Your task to perform on an android device: show emergency info Image 0: 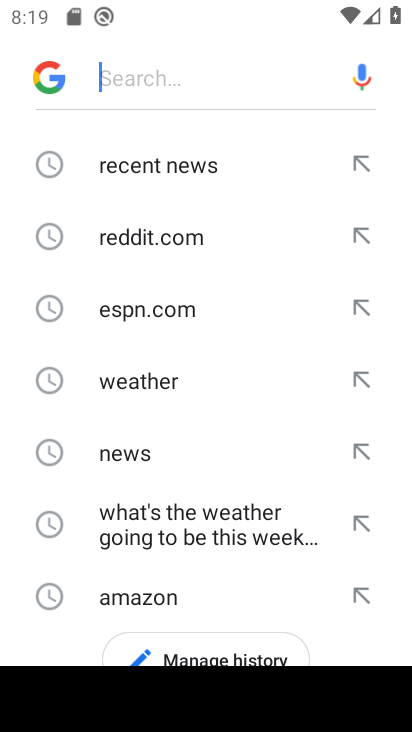
Step 0: press home button
Your task to perform on an android device: show emergency info Image 1: 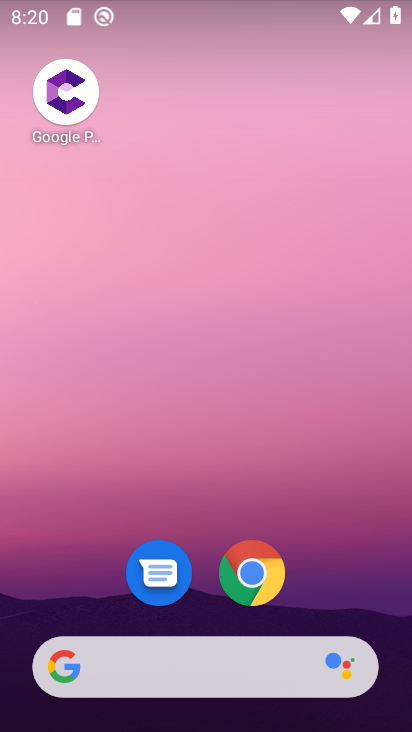
Step 1: drag from (256, 247) to (232, 43)
Your task to perform on an android device: show emergency info Image 2: 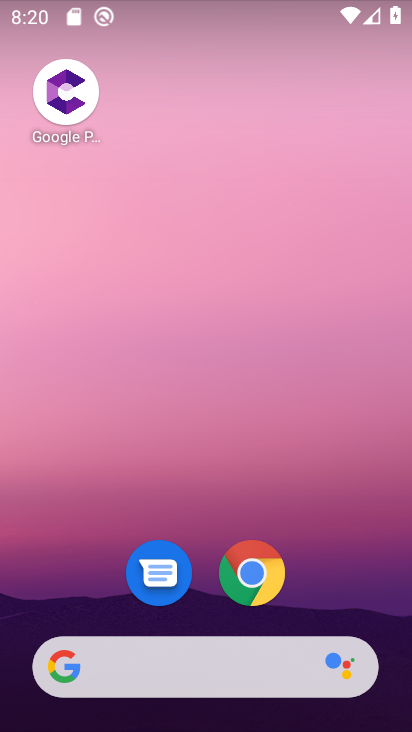
Step 2: drag from (286, 486) to (246, 134)
Your task to perform on an android device: show emergency info Image 3: 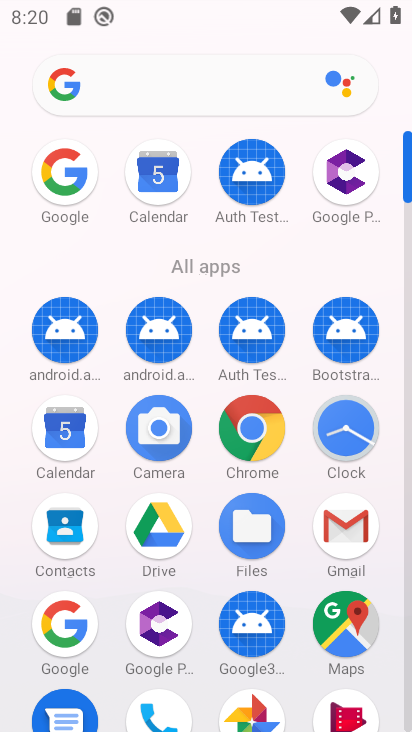
Step 3: drag from (206, 241) to (206, 106)
Your task to perform on an android device: show emergency info Image 4: 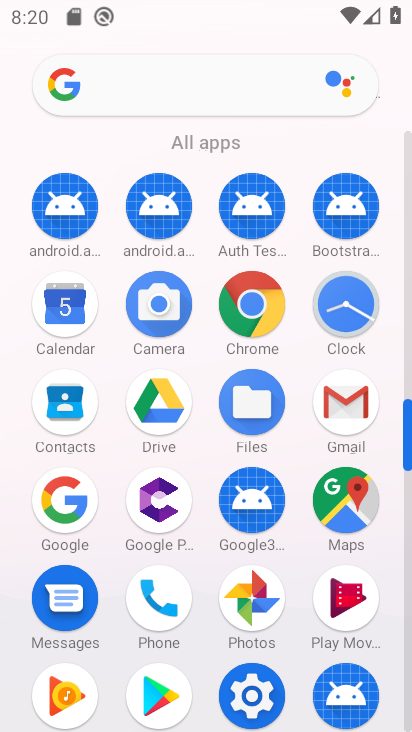
Step 4: click (243, 679)
Your task to perform on an android device: show emergency info Image 5: 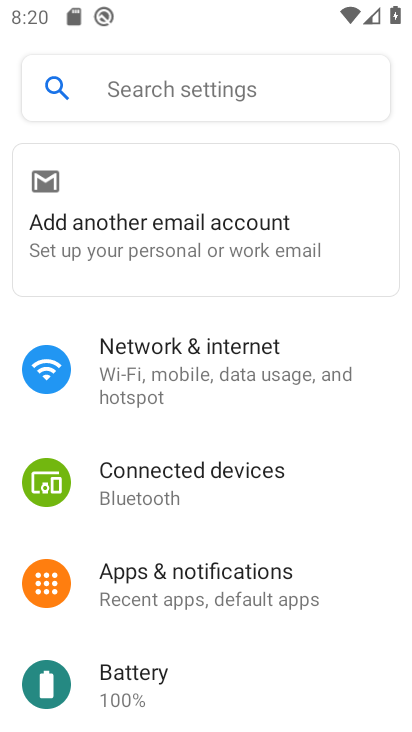
Step 5: drag from (257, 593) to (281, 75)
Your task to perform on an android device: show emergency info Image 6: 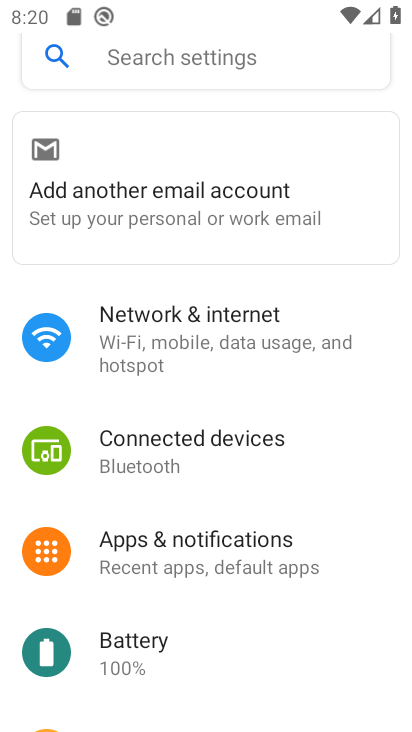
Step 6: drag from (195, 470) to (193, 194)
Your task to perform on an android device: show emergency info Image 7: 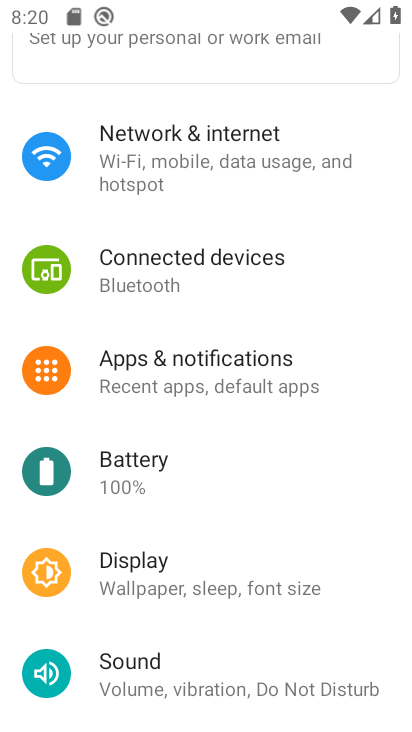
Step 7: drag from (192, 359) to (190, 289)
Your task to perform on an android device: show emergency info Image 8: 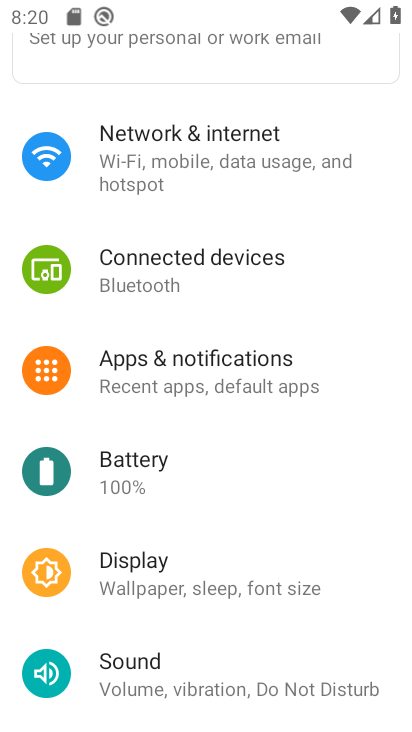
Step 8: drag from (215, 342) to (215, 270)
Your task to perform on an android device: show emergency info Image 9: 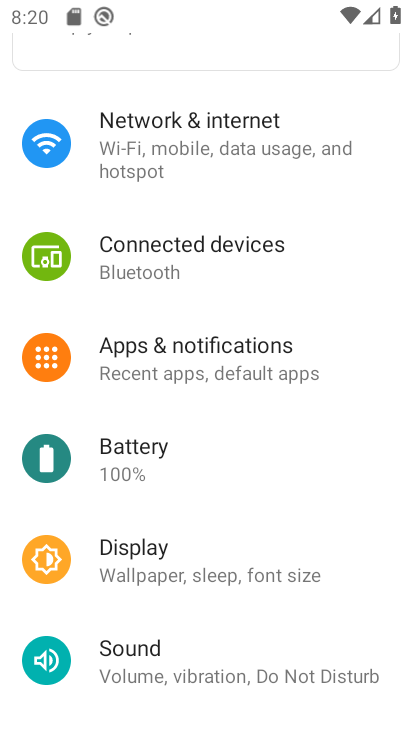
Step 9: drag from (214, 564) to (210, 371)
Your task to perform on an android device: show emergency info Image 10: 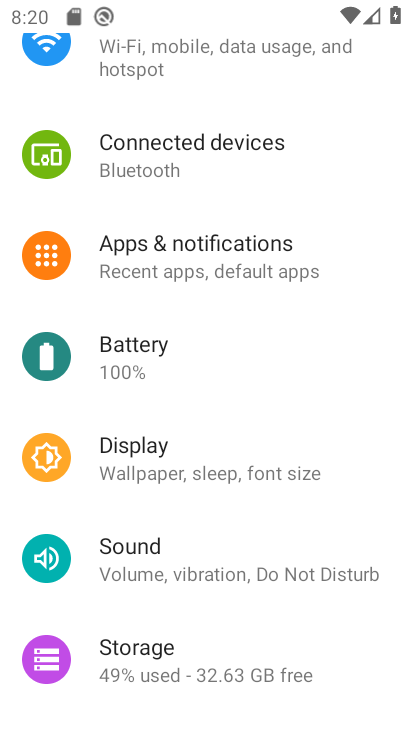
Step 10: drag from (232, 495) to (232, 321)
Your task to perform on an android device: show emergency info Image 11: 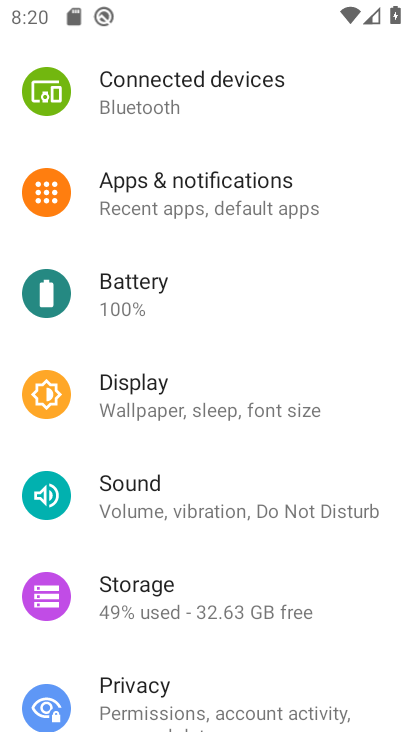
Step 11: drag from (226, 554) to (218, 318)
Your task to perform on an android device: show emergency info Image 12: 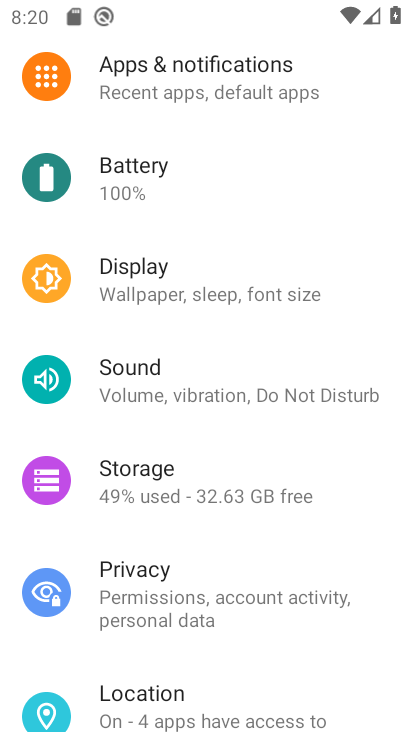
Step 12: drag from (229, 412) to (229, 363)
Your task to perform on an android device: show emergency info Image 13: 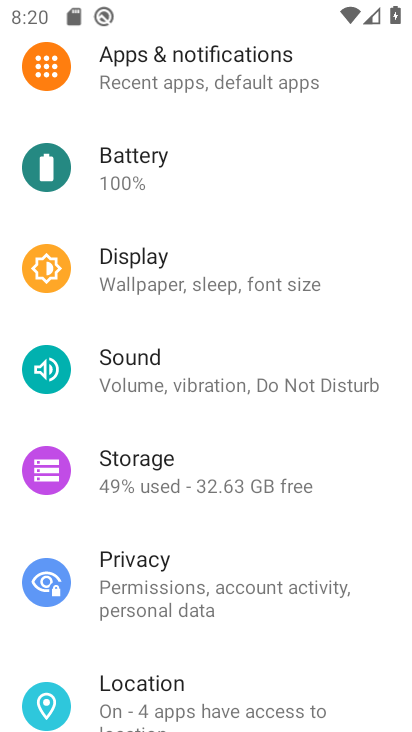
Step 13: drag from (226, 630) to (232, 289)
Your task to perform on an android device: show emergency info Image 14: 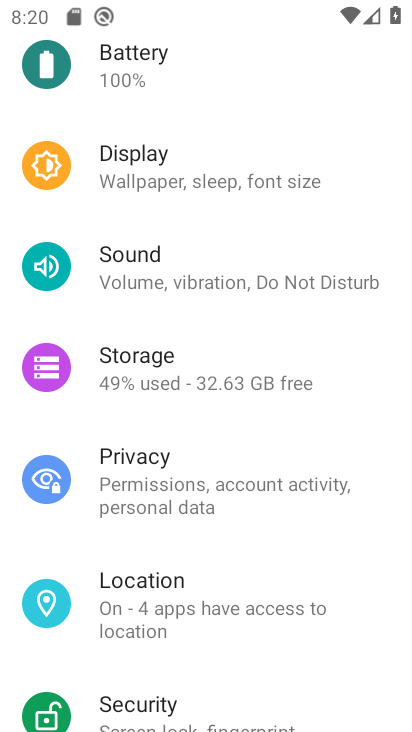
Step 14: drag from (220, 441) to (220, 347)
Your task to perform on an android device: show emergency info Image 15: 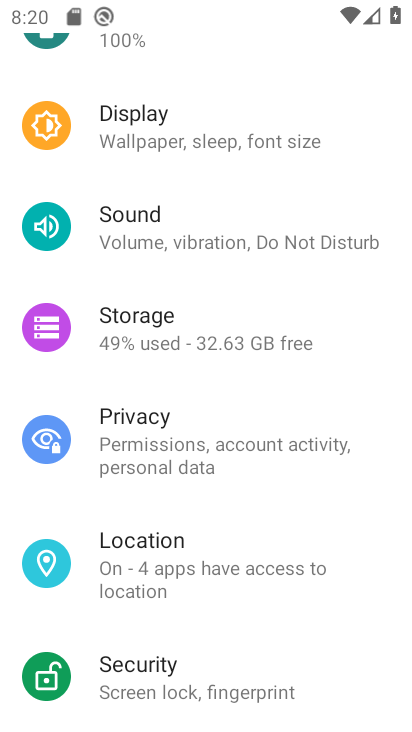
Step 15: drag from (227, 540) to (225, 422)
Your task to perform on an android device: show emergency info Image 16: 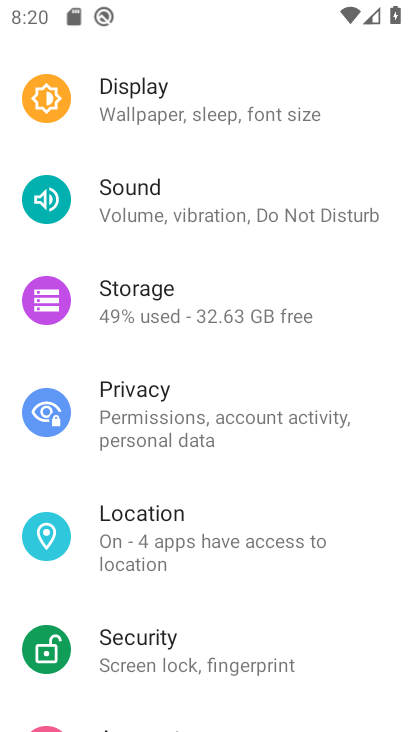
Step 16: drag from (239, 560) to (236, 400)
Your task to perform on an android device: show emergency info Image 17: 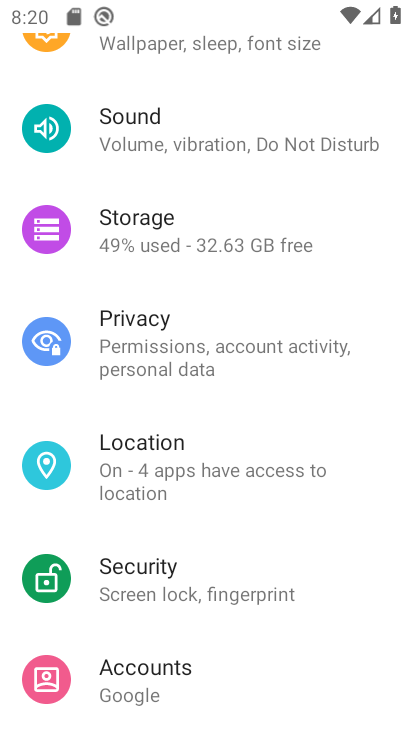
Step 17: drag from (233, 622) to (222, 497)
Your task to perform on an android device: show emergency info Image 18: 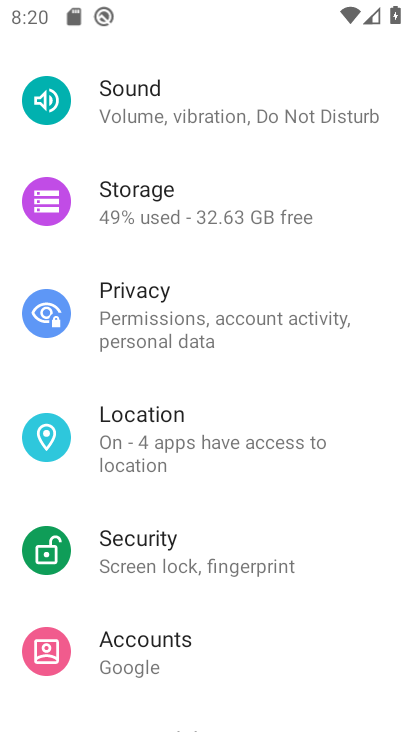
Step 18: drag from (227, 537) to (220, 398)
Your task to perform on an android device: show emergency info Image 19: 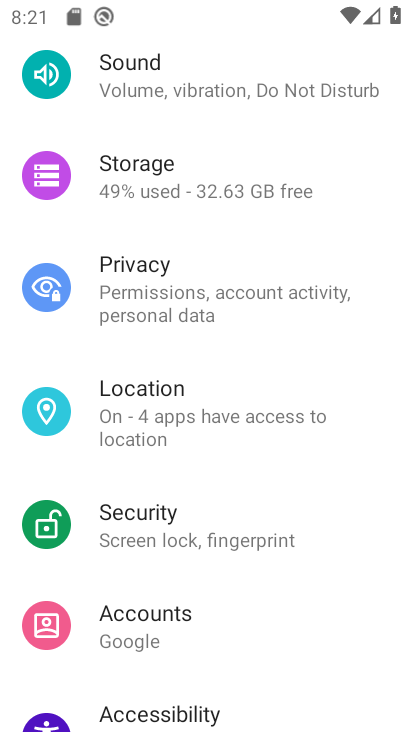
Step 19: drag from (209, 479) to (210, 142)
Your task to perform on an android device: show emergency info Image 20: 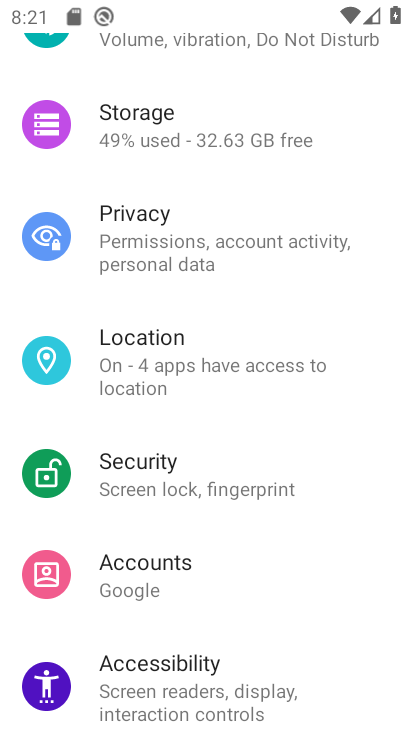
Step 20: drag from (184, 240) to (166, 25)
Your task to perform on an android device: show emergency info Image 21: 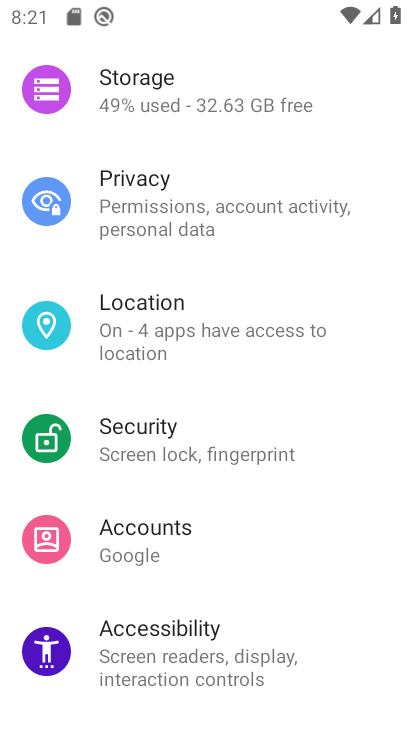
Step 21: drag from (239, 558) to (232, 184)
Your task to perform on an android device: show emergency info Image 22: 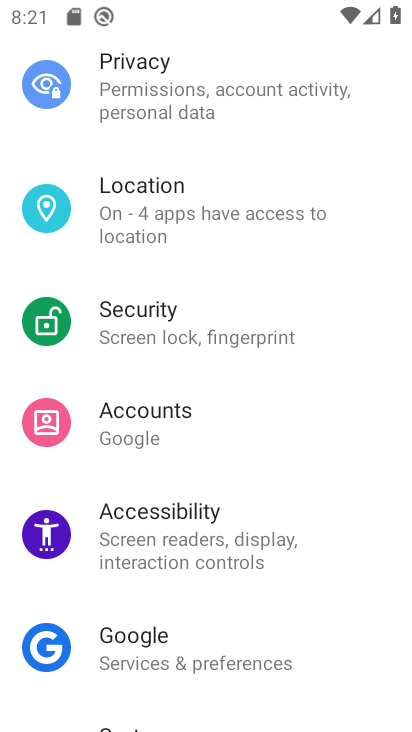
Step 22: click (295, 284)
Your task to perform on an android device: show emergency info Image 23: 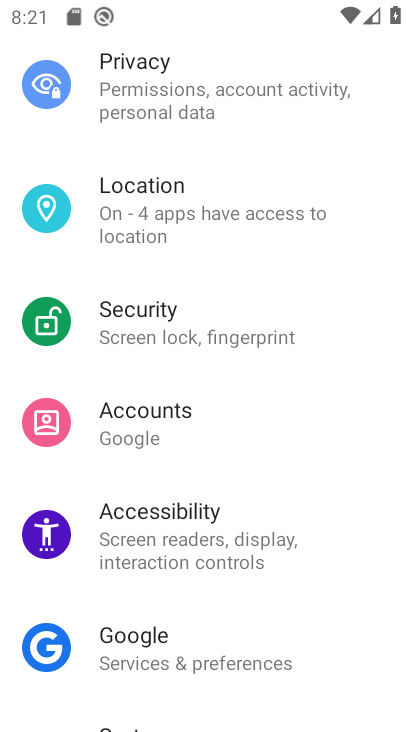
Step 23: drag from (204, 589) to (204, 362)
Your task to perform on an android device: show emergency info Image 24: 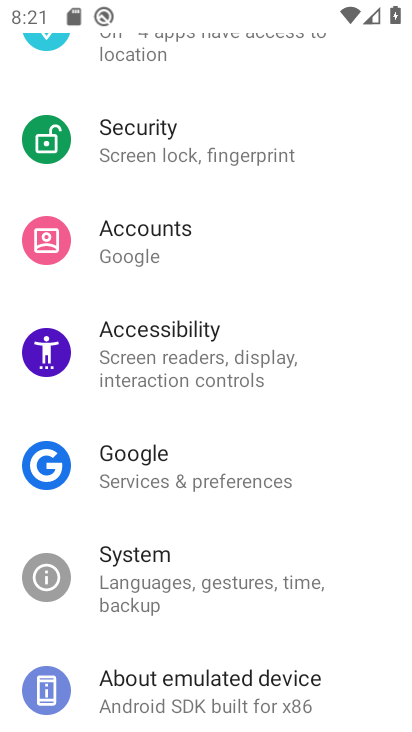
Step 24: click (193, 703)
Your task to perform on an android device: show emergency info Image 25: 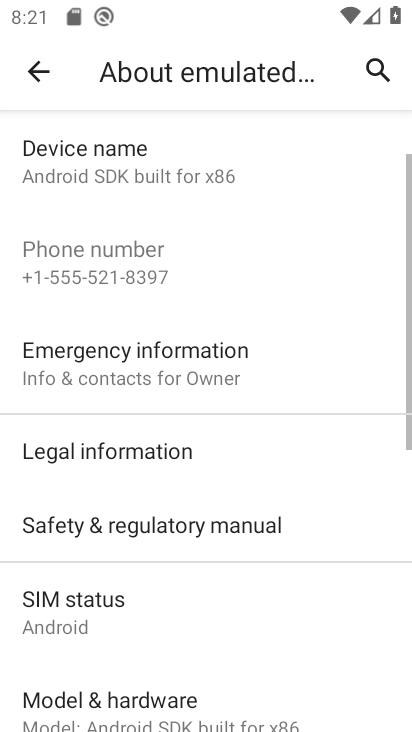
Step 25: click (147, 366)
Your task to perform on an android device: show emergency info Image 26: 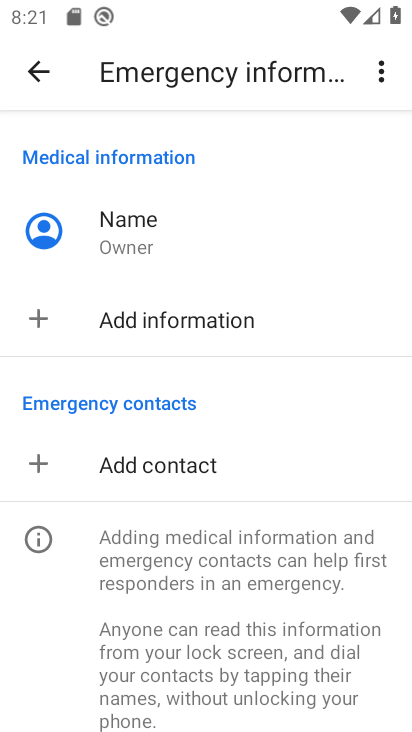
Step 26: task complete